Your task to perform on an android device: Open calendar and show me the second week of next month Image 0: 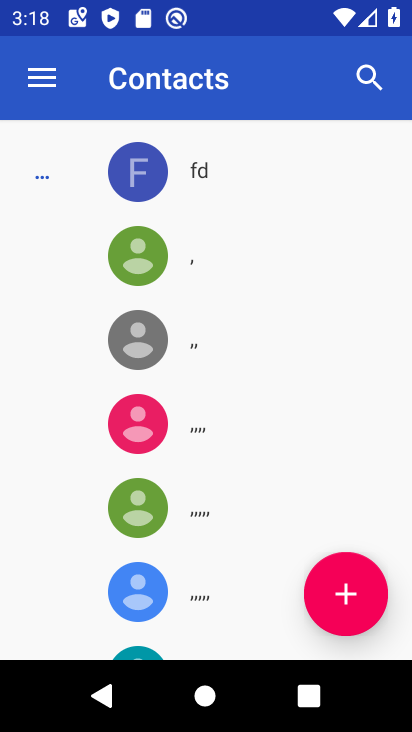
Step 0: press back button
Your task to perform on an android device: Open calendar and show me the second week of next month Image 1: 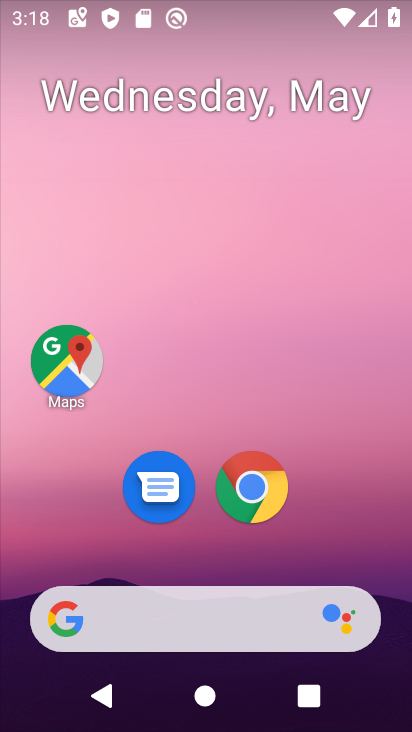
Step 1: drag from (334, 560) to (319, 20)
Your task to perform on an android device: Open calendar and show me the second week of next month Image 2: 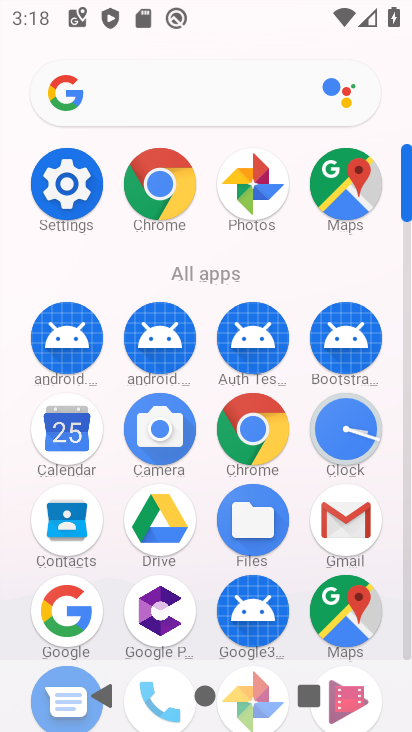
Step 2: drag from (15, 587) to (10, 296)
Your task to perform on an android device: Open calendar and show me the second week of next month Image 3: 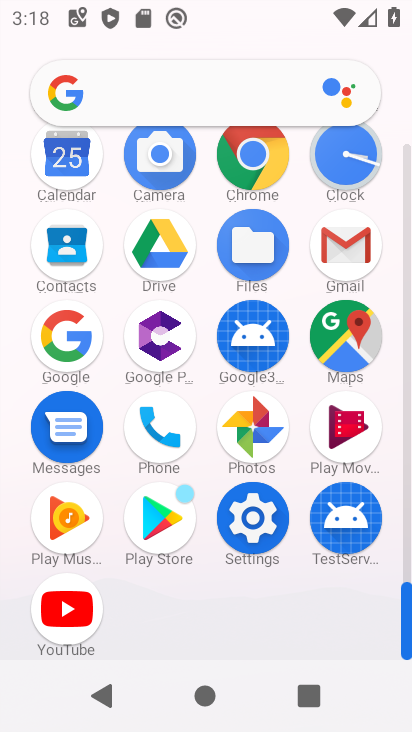
Step 3: click (61, 153)
Your task to perform on an android device: Open calendar and show me the second week of next month Image 4: 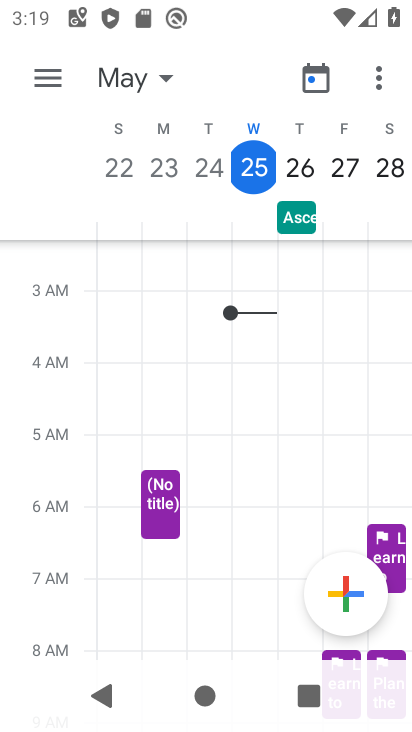
Step 4: click (118, 79)
Your task to perform on an android device: Open calendar and show me the second week of next month Image 5: 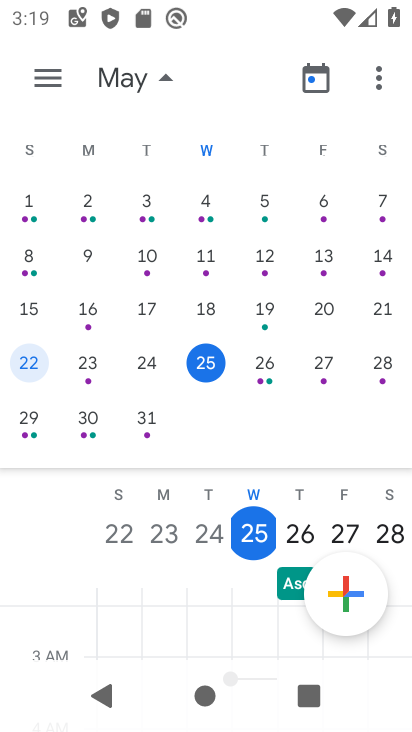
Step 5: drag from (378, 277) to (10, 251)
Your task to perform on an android device: Open calendar and show me the second week of next month Image 6: 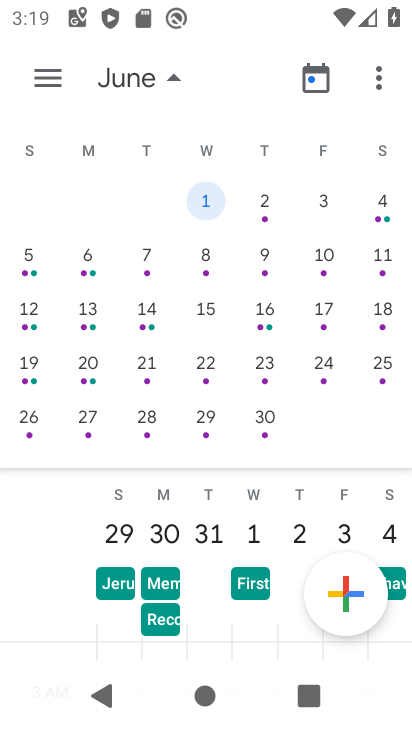
Step 6: click (30, 252)
Your task to perform on an android device: Open calendar and show me the second week of next month Image 7: 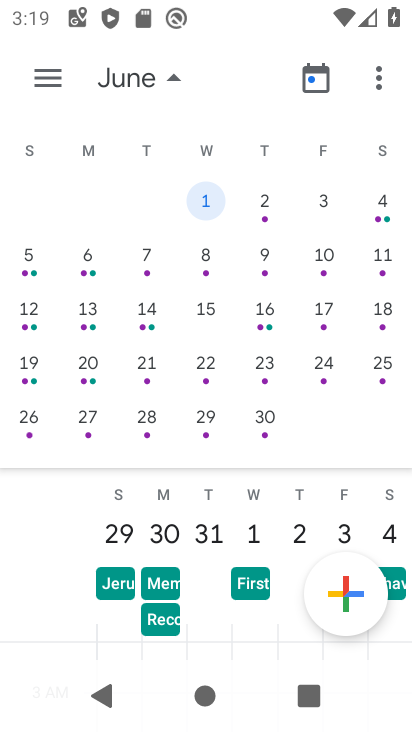
Step 7: click (30, 252)
Your task to perform on an android device: Open calendar and show me the second week of next month Image 8: 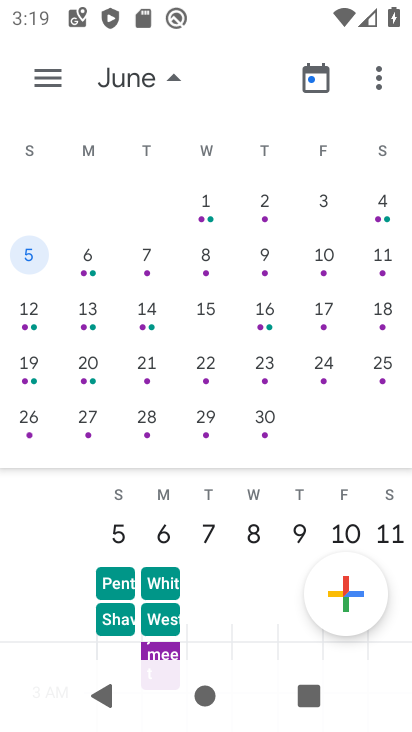
Step 8: click (40, 69)
Your task to perform on an android device: Open calendar and show me the second week of next month Image 9: 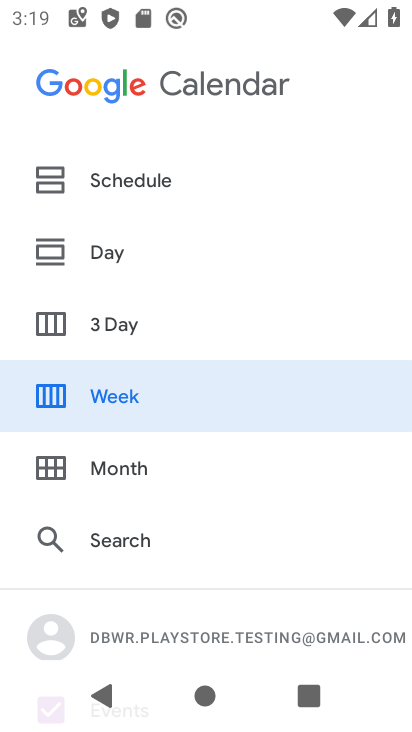
Step 9: click (171, 396)
Your task to perform on an android device: Open calendar and show me the second week of next month Image 10: 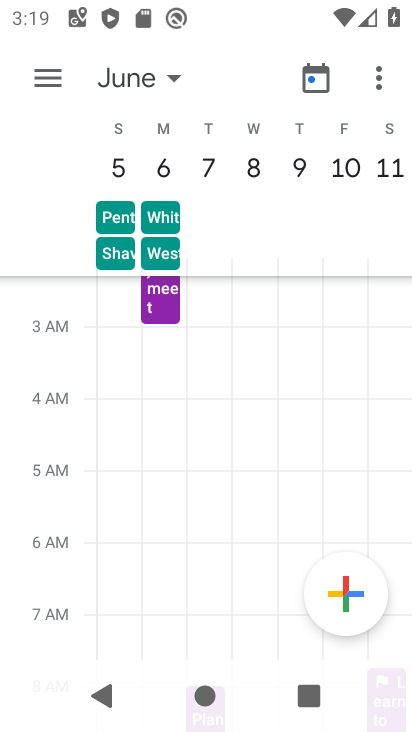
Step 10: task complete